Your task to perform on an android device: change notifications settings Image 0: 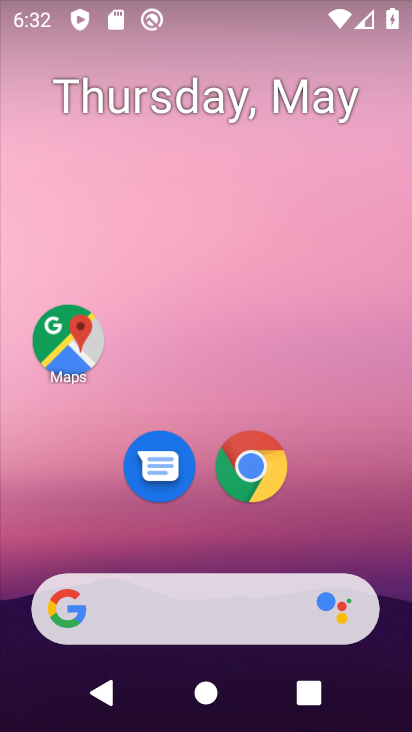
Step 0: drag from (335, 505) to (234, 91)
Your task to perform on an android device: change notifications settings Image 1: 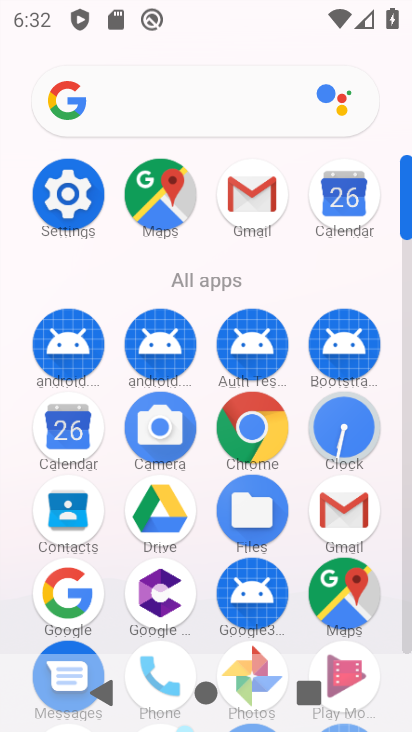
Step 1: click (63, 195)
Your task to perform on an android device: change notifications settings Image 2: 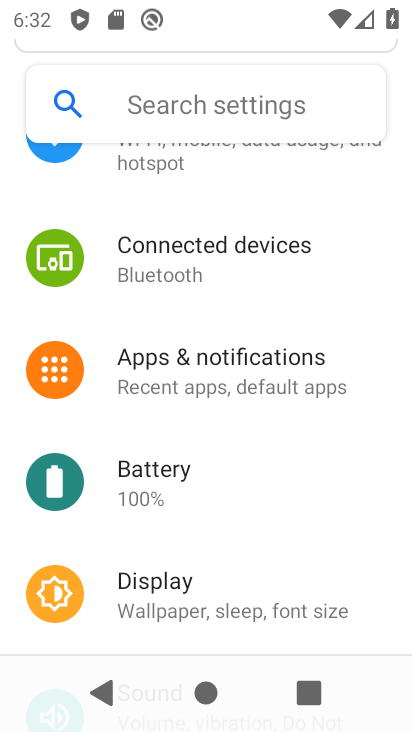
Step 2: click (251, 365)
Your task to perform on an android device: change notifications settings Image 3: 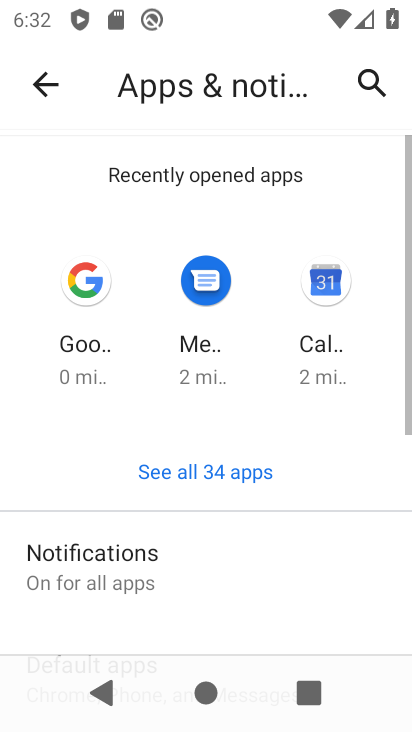
Step 3: drag from (242, 547) to (156, 213)
Your task to perform on an android device: change notifications settings Image 4: 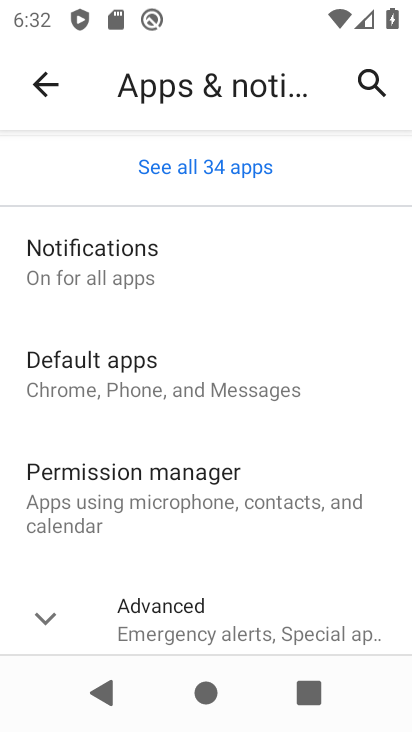
Step 4: click (89, 259)
Your task to perform on an android device: change notifications settings Image 5: 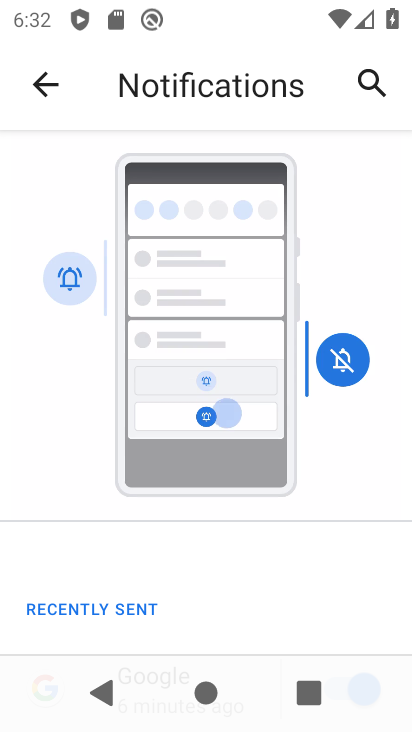
Step 5: drag from (293, 598) to (220, 293)
Your task to perform on an android device: change notifications settings Image 6: 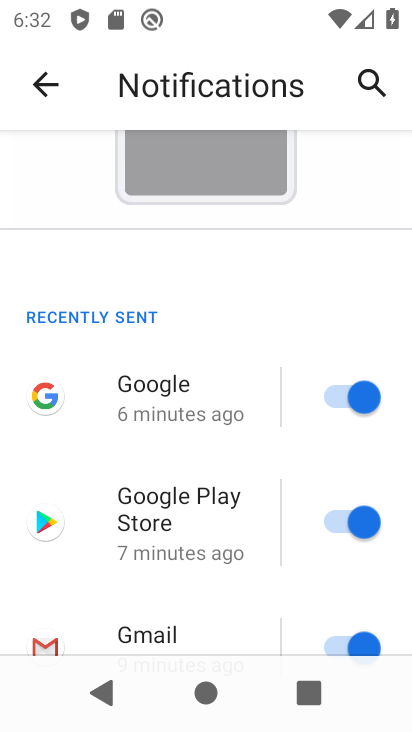
Step 6: drag from (224, 550) to (176, 303)
Your task to perform on an android device: change notifications settings Image 7: 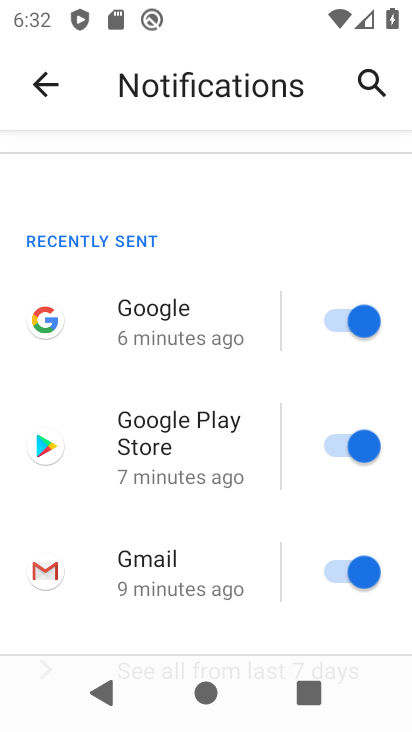
Step 7: drag from (218, 552) to (163, 266)
Your task to perform on an android device: change notifications settings Image 8: 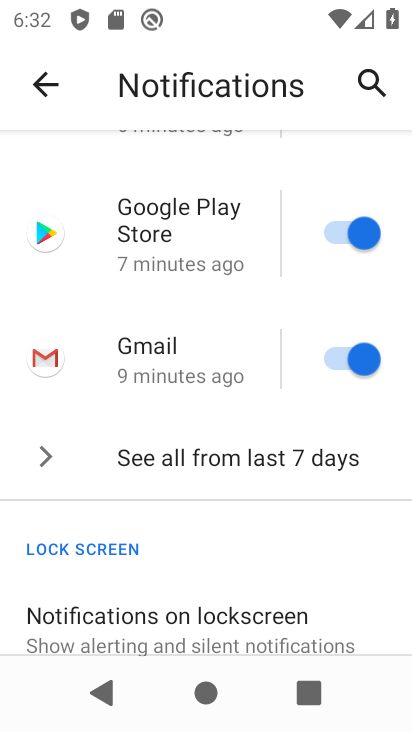
Step 8: click (174, 456)
Your task to perform on an android device: change notifications settings Image 9: 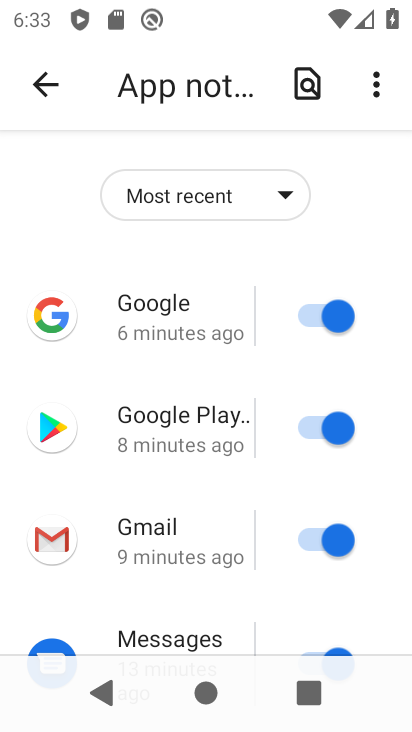
Step 9: click (275, 183)
Your task to perform on an android device: change notifications settings Image 10: 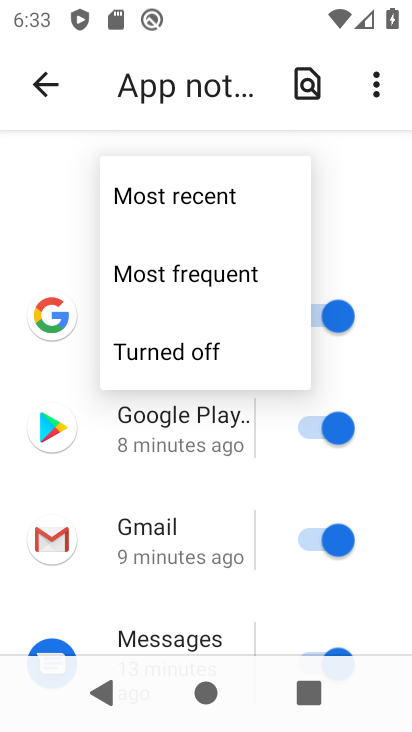
Step 10: click (210, 344)
Your task to perform on an android device: change notifications settings Image 11: 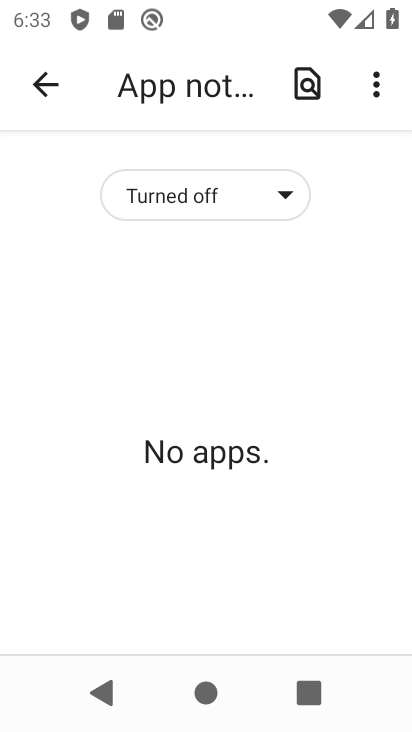
Step 11: task complete